Your task to perform on an android device: choose inbox layout in the gmail app Image 0: 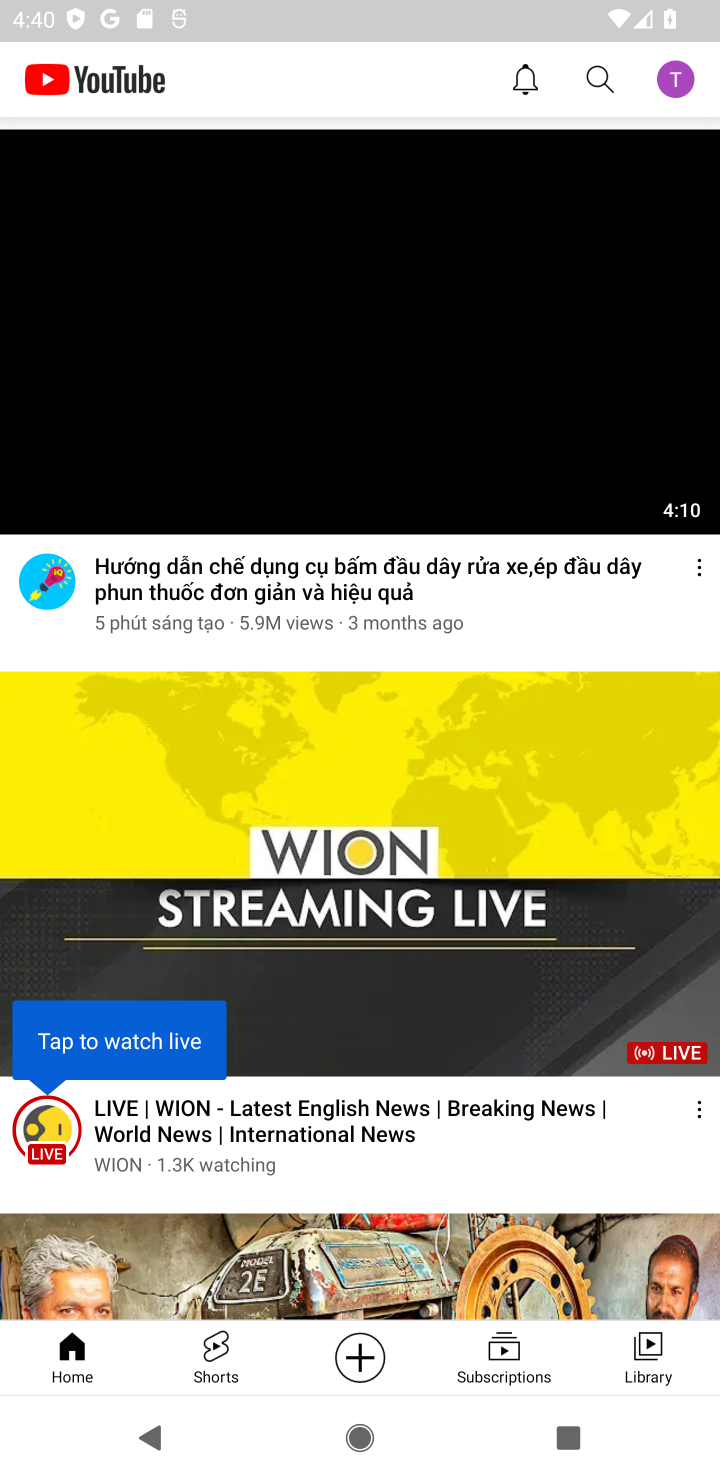
Step 0: press home button
Your task to perform on an android device: choose inbox layout in the gmail app Image 1: 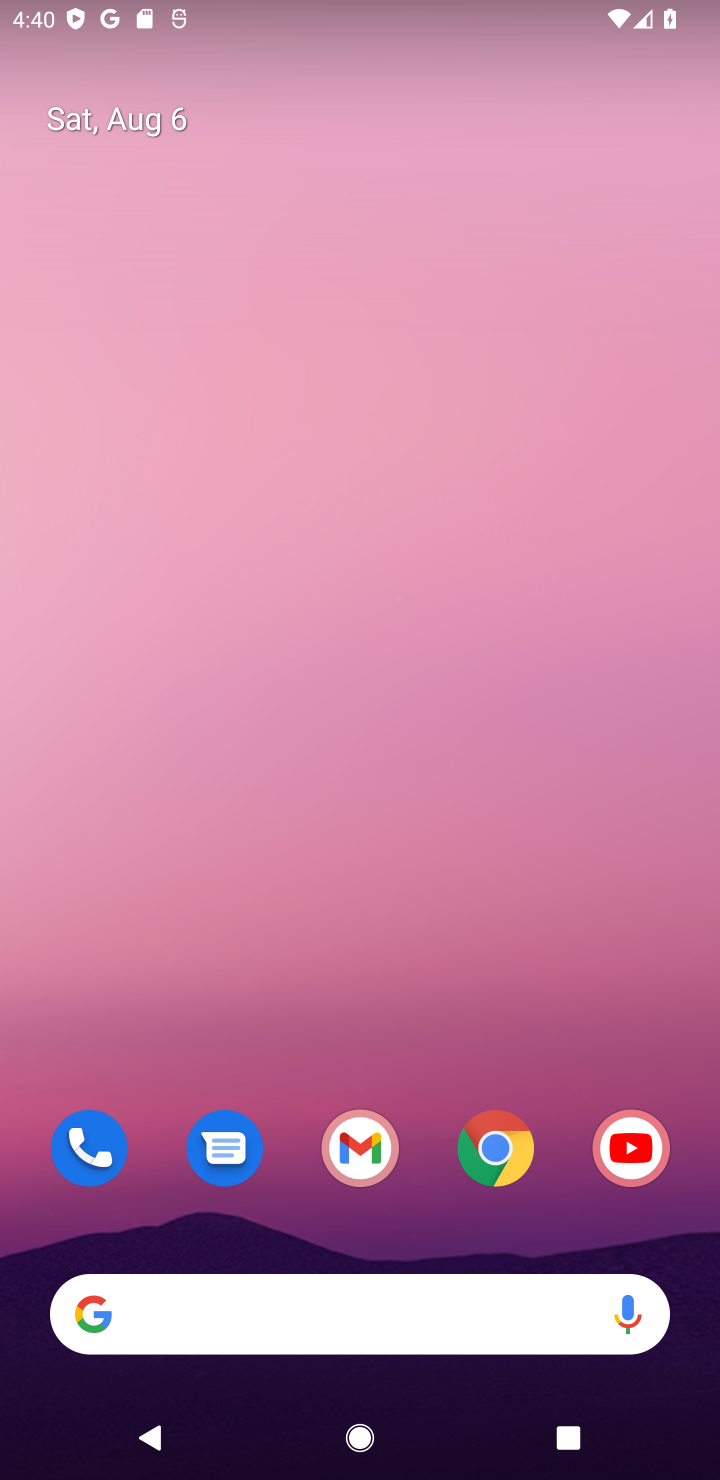
Step 1: drag from (433, 1258) to (203, 21)
Your task to perform on an android device: choose inbox layout in the gmail app Image 2: 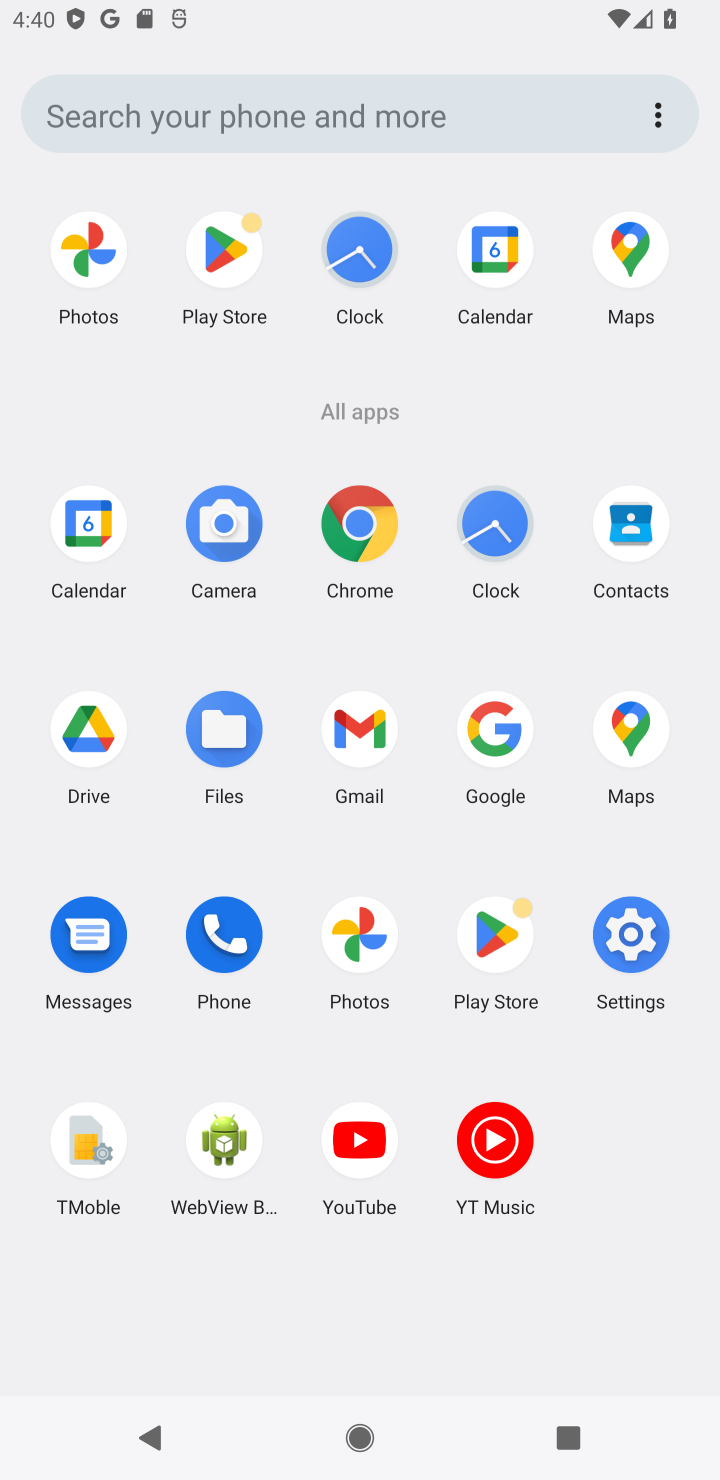
Step 2: click (338, 706)
Your task to perform on an android device: choose inbox layout in the gmail app Image 3: 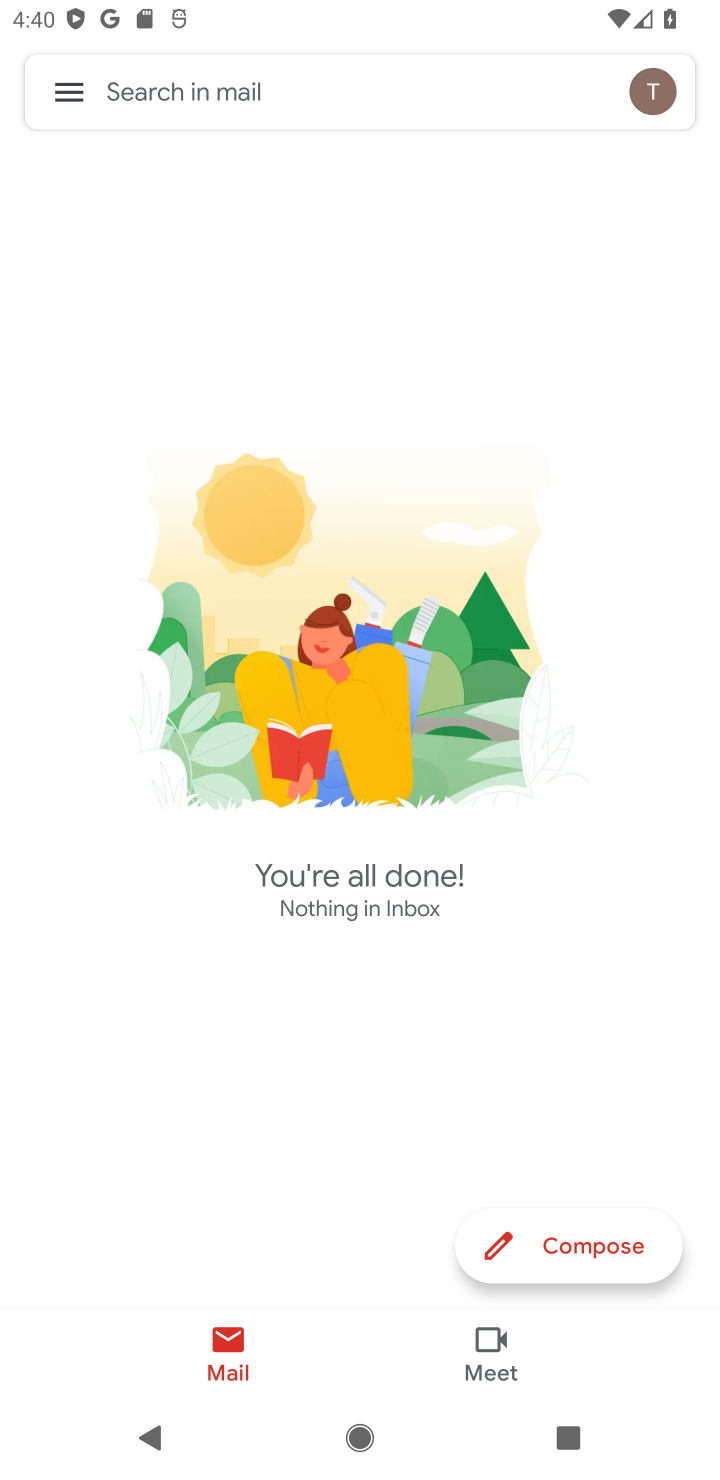
Step 3: drag from (272, 628) to (260, 899)
Your task to perform on an android device: choose inbox layout in the gmail app Image 4: 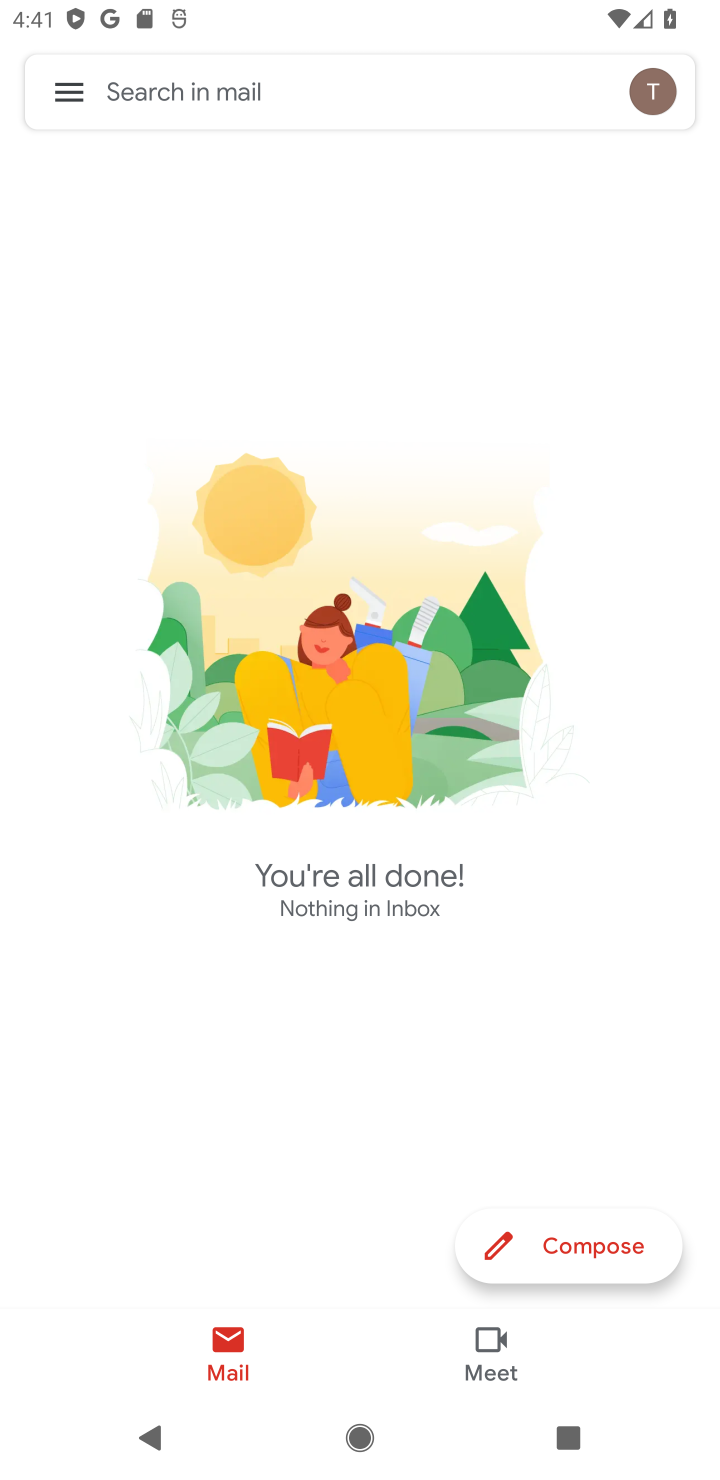
Step 4: click (54, 100)
Your task to perform on an android device: choose inbox layout in the gmail app Image 5: 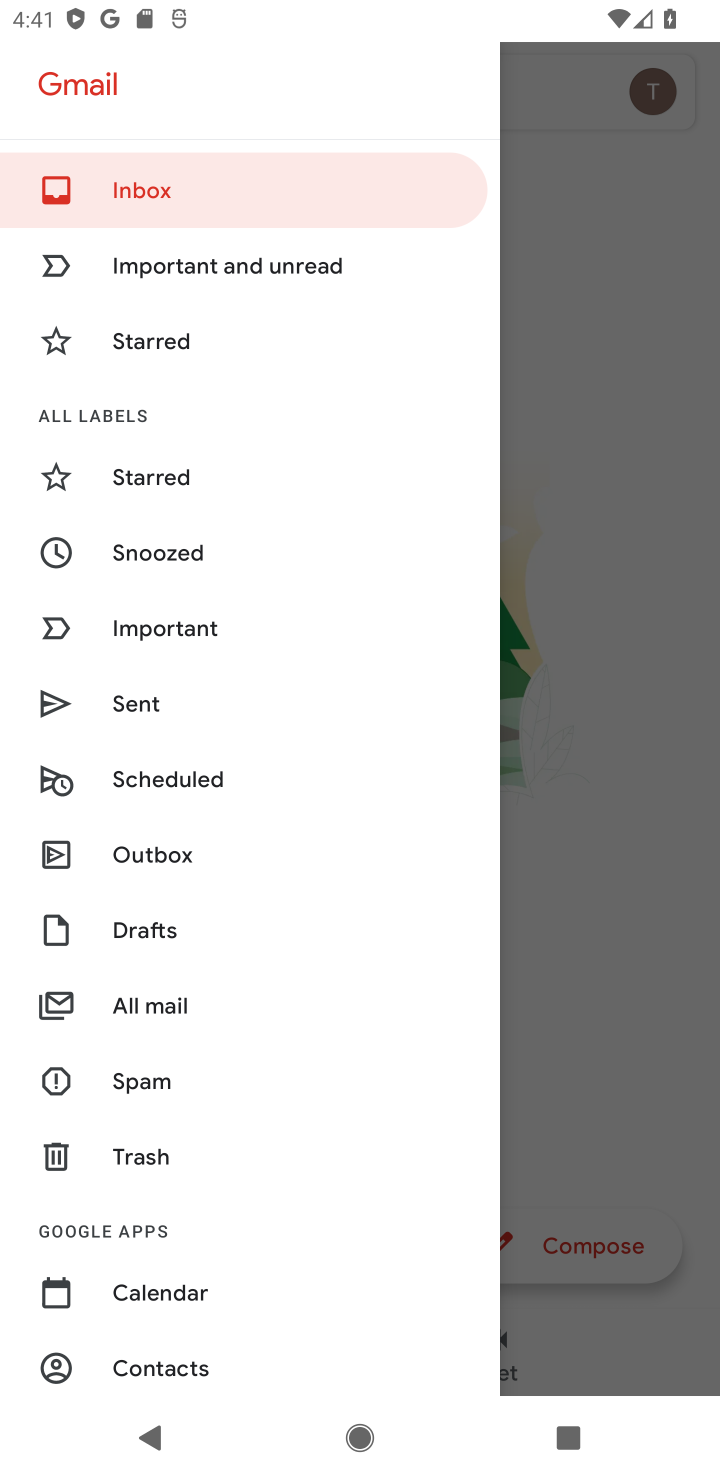
Step 5: drag from (278, 1255) to (45, 293)
Your task to perform on an android device: choose inbox layout in the gmail app Image 6: 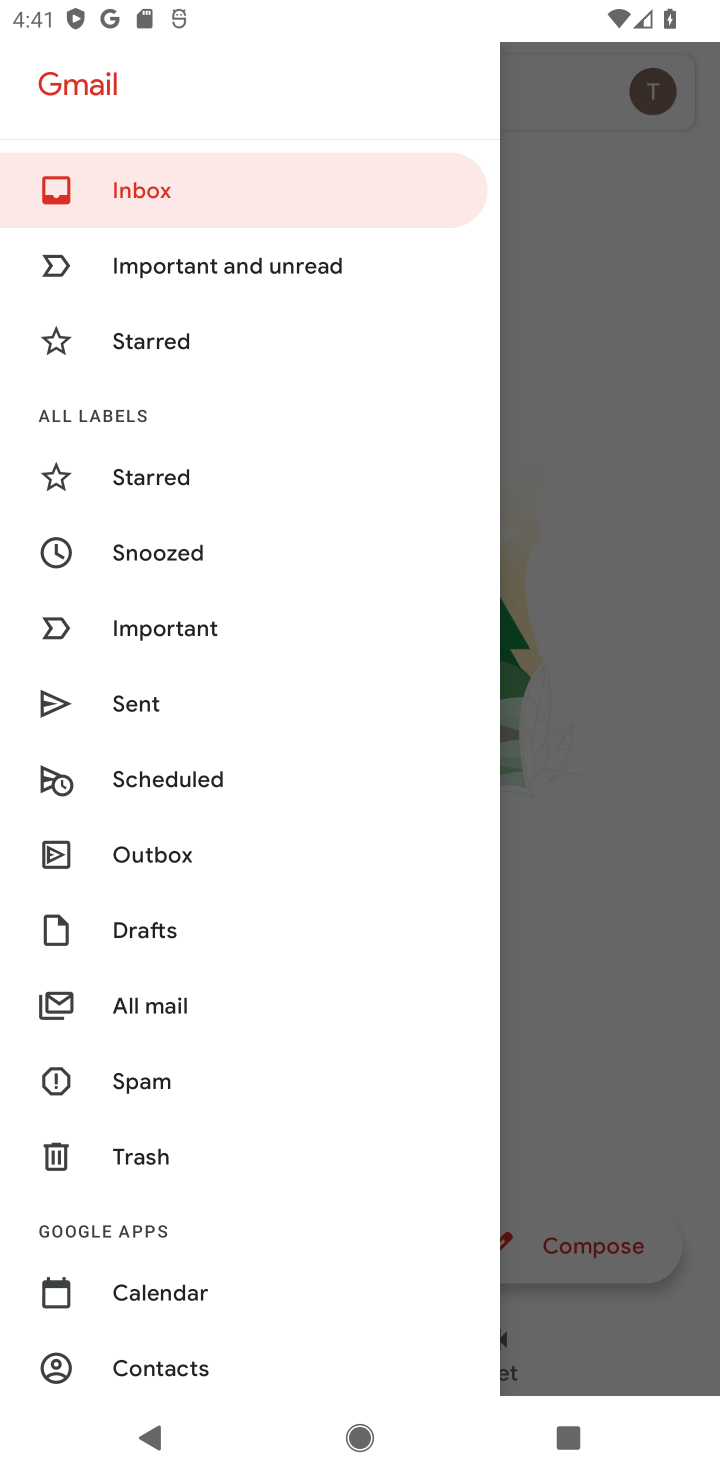
Step 6: drag from (187, 1327) to (238, 385)
Your task to perform on an android device: choose inbox layout in the gmail app Image 7: 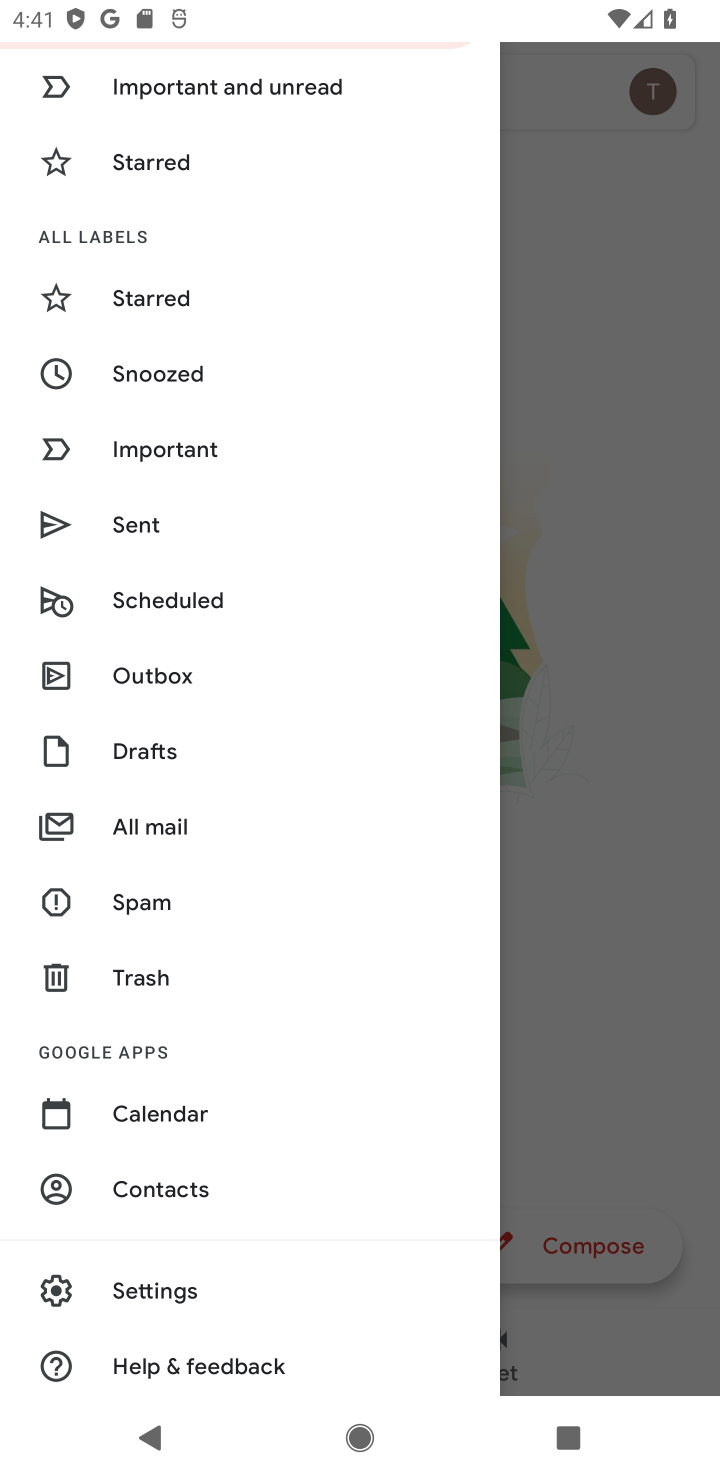
Step 7: click (151, 1270)
Your task to perform on an android device: choose inbox layout in the gmail app Image 8: 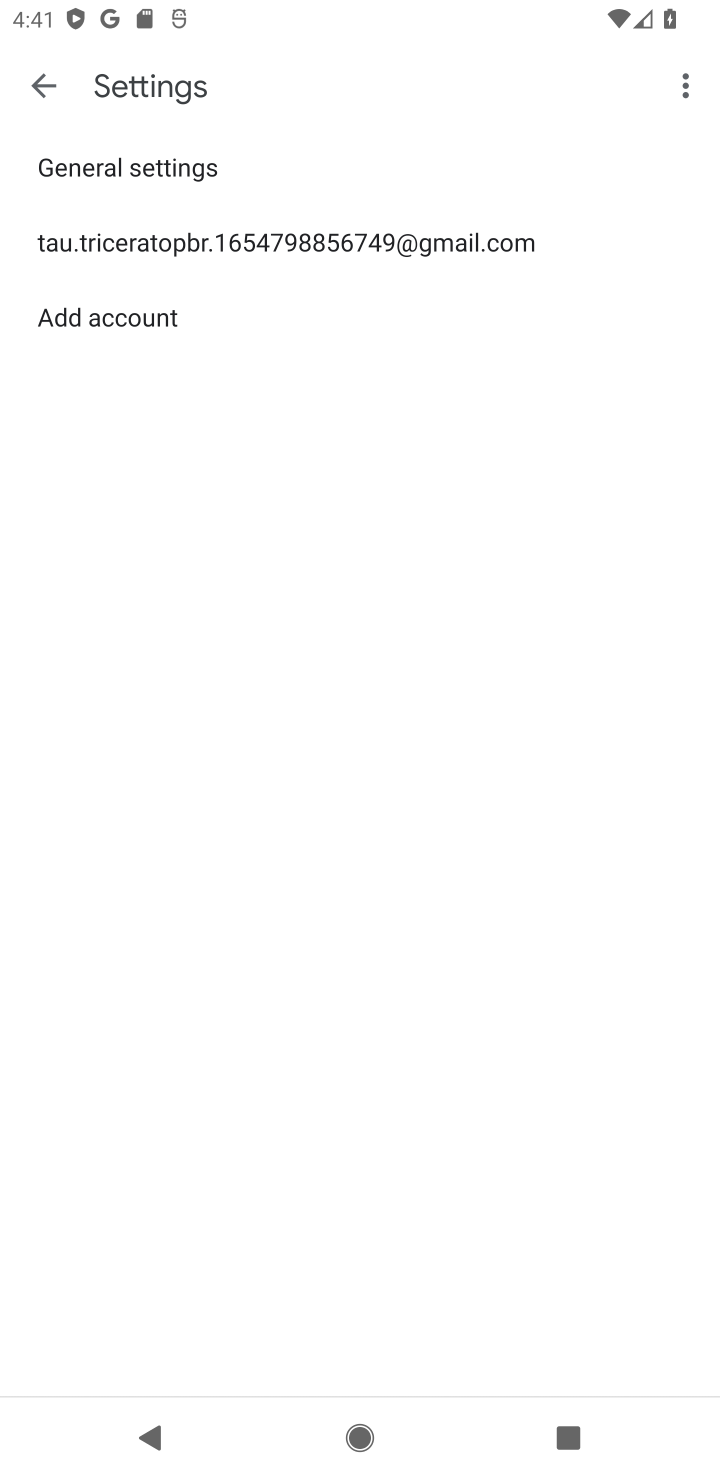
Step 8: click (115, 233)
Your task to perform on an android device: choose inbox layout in the gmail app Image 9: 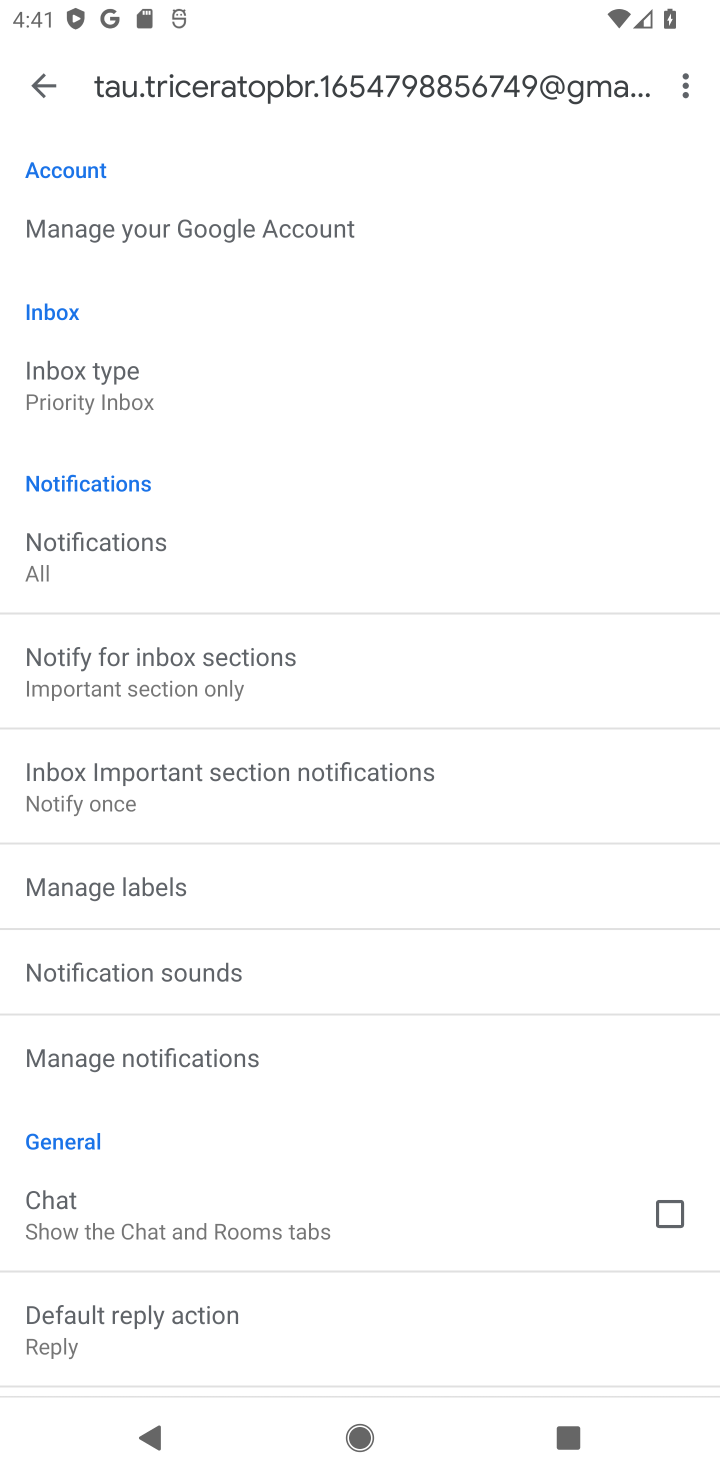
Step 9: click (78, 396)
Your task to perform on an android device: choose inbox layout in the gmail app Image 10: 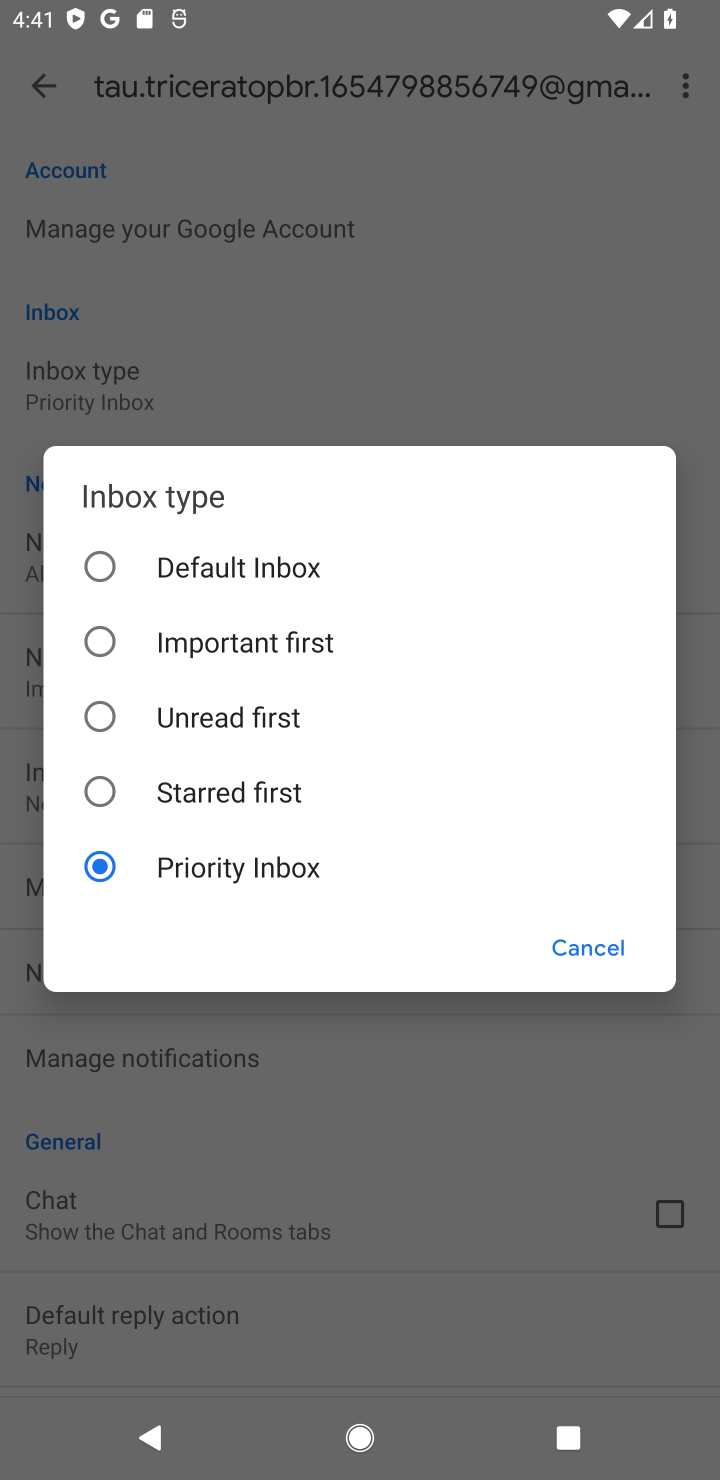
Step 10: click (172, 561)
Your task to perform on an android device: choose inbox layout in the gmail app Image 11: 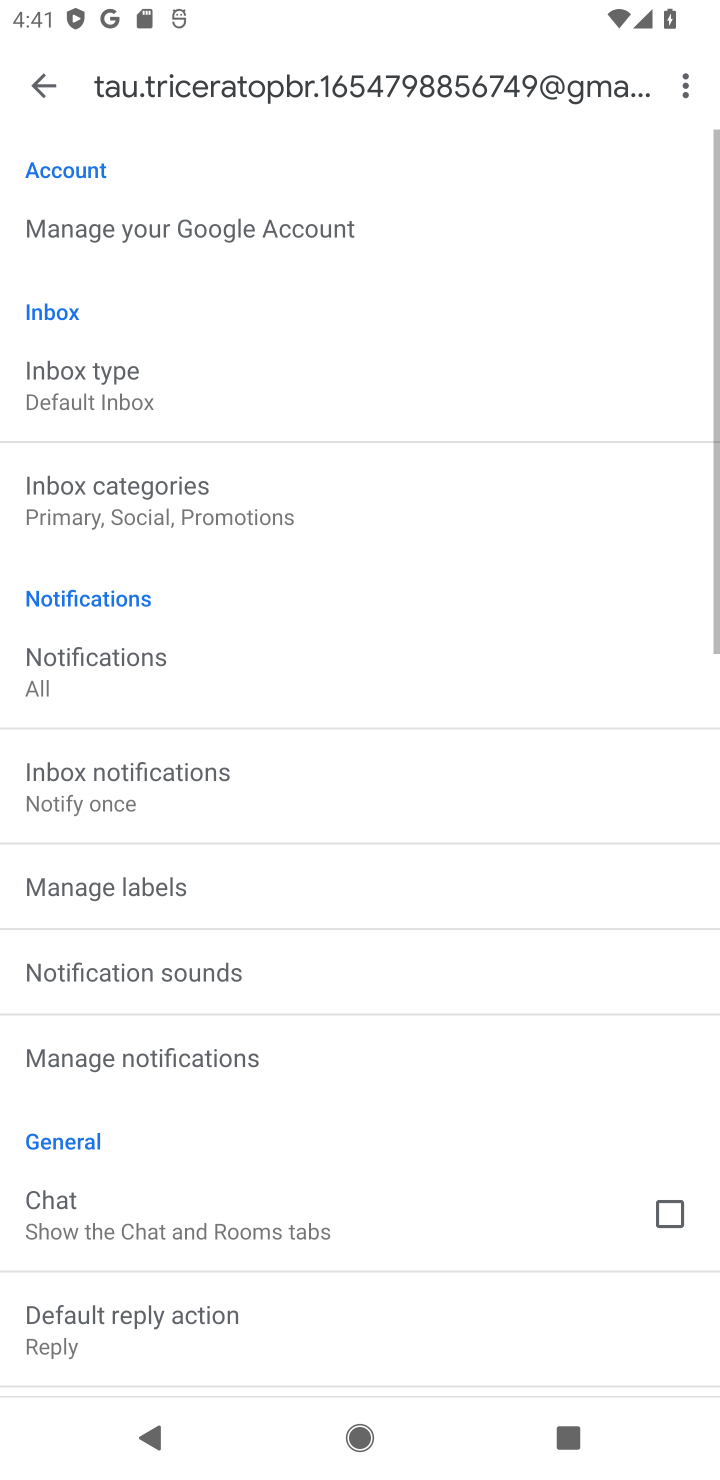
Step 11: task complete